Your task to perform on an android device: turn on location history Image 0: 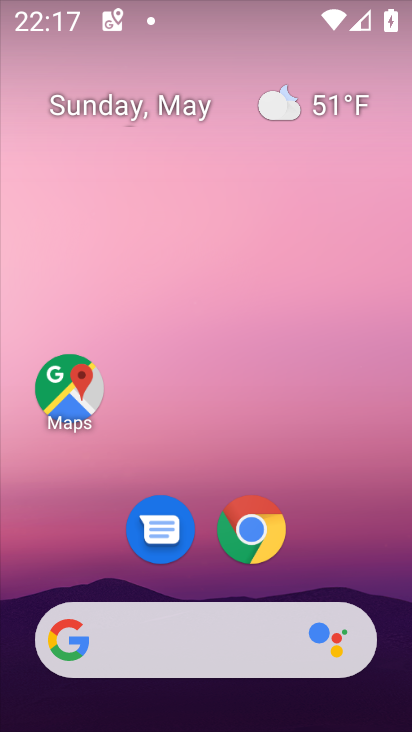
Step 0: drag from (184, 599) to (250, 6)
Your task to perform on an android device: turn on location history Image 1: 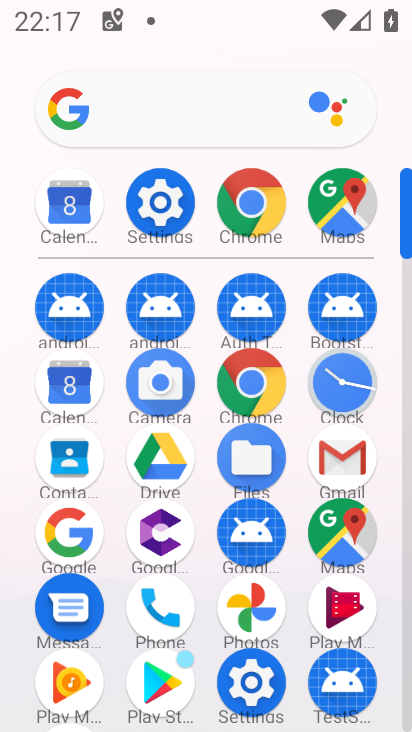
Step 1: click (252, 668)
Your task to perform on an android device: turn on location history Image 2: 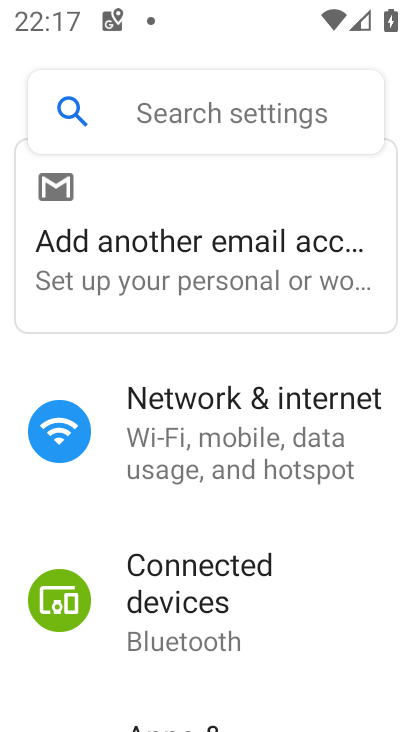
Step 2: drag from (226, 661) to (201, 199)
Your task to perform on an android device: turn on location history Image 3: 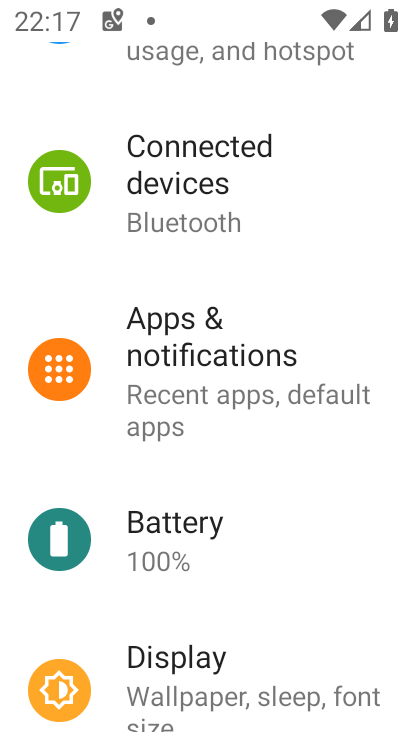
Step 3: drag from (240, 701) to (210, 107)
Your task to perform on an android device: turn on location history Image 4: 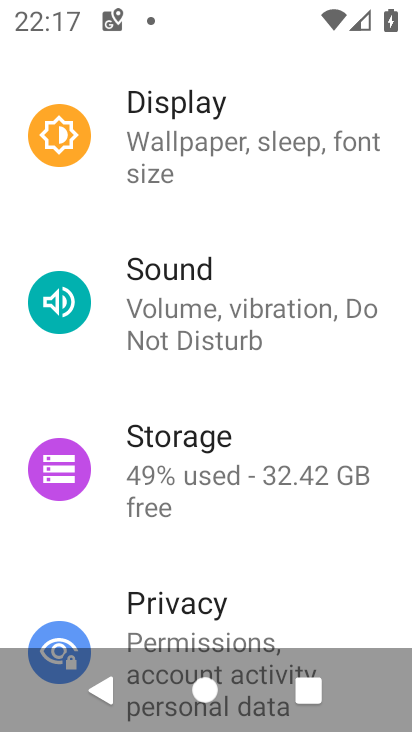
Step 4: drag from (278, 614) to (283, 104)
Your task to perform on an android device: turn on location history Image 5: 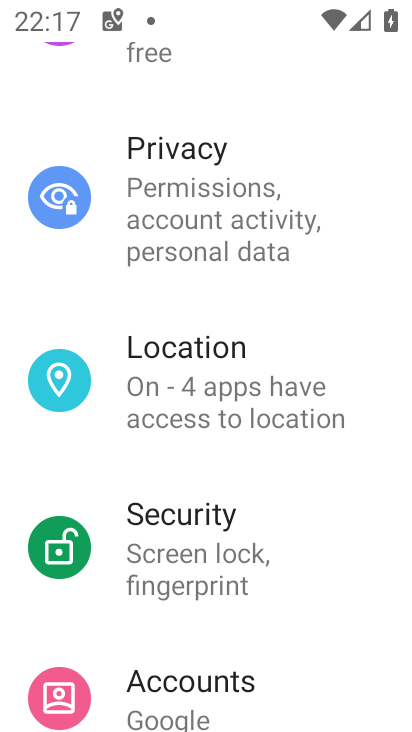
Step 5: click (251, 372)
Your task to perform on an android device: turn on location history Image 6: 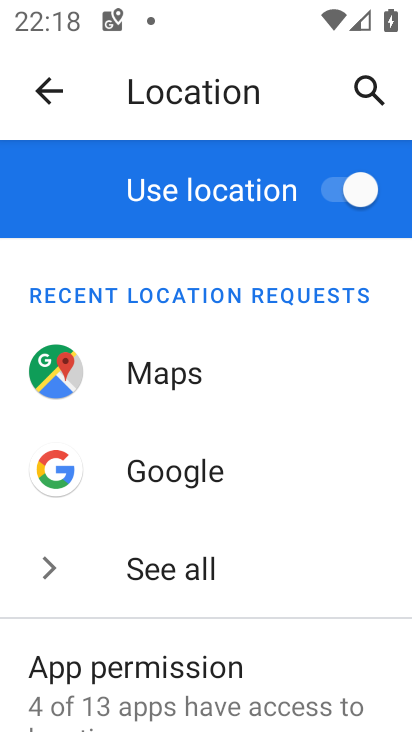
Step 6: drag from (229, 661) to (233, 228)
Your task to perform on an android device: turn on location history Image 7: 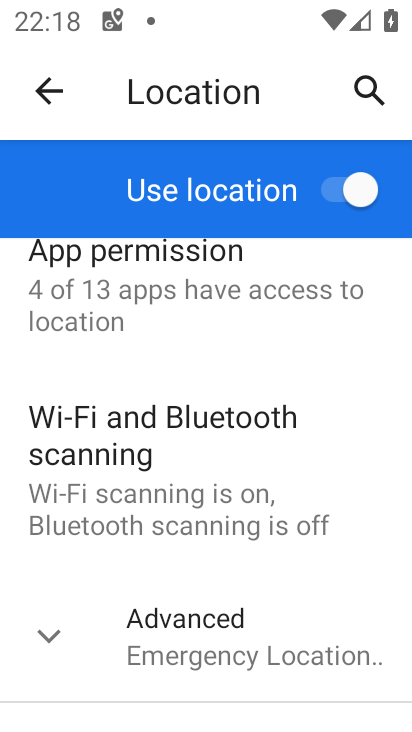
Step 7: drag from (140, 676) to (144, 332)
Your task to perform on an android device: turn on location history Image 8: 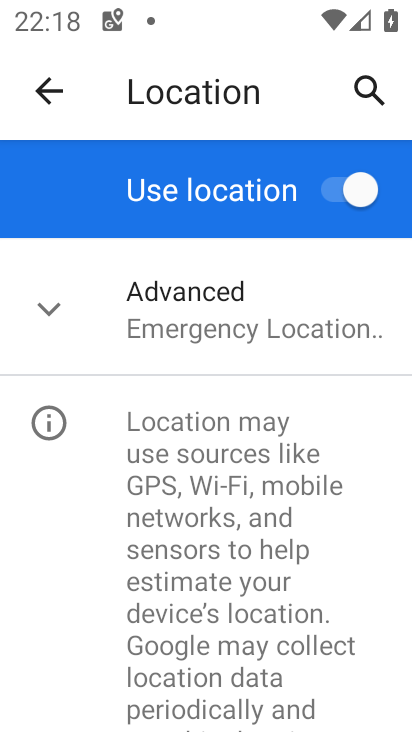
Step 8: click (183, 324)
Your task to perform on an android device: turn on location history Image 9: 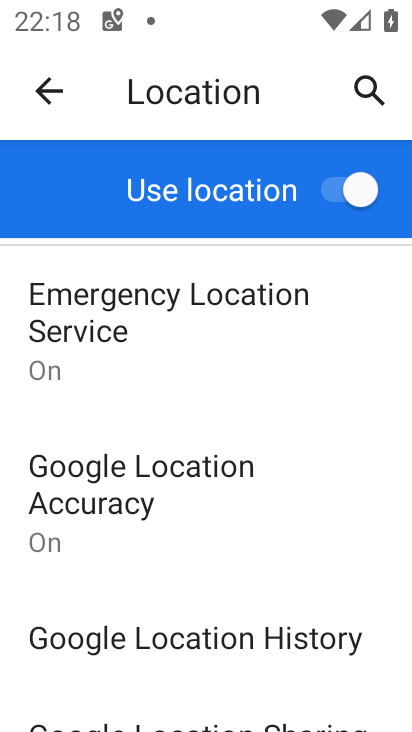
Step 9: click (193, 640)
Your task to perform on an android device: turn on location history Image 10: 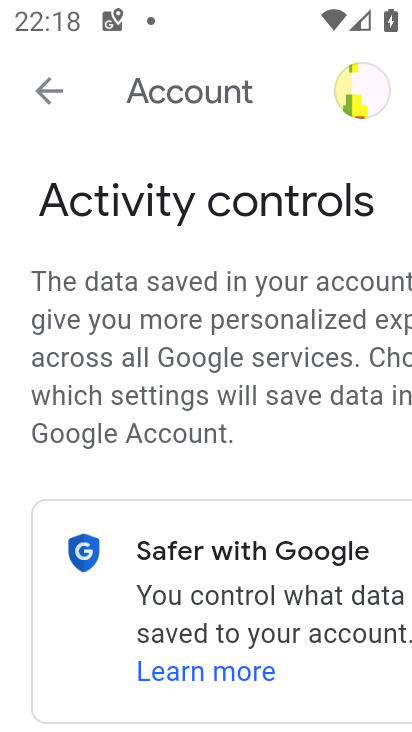
Step 10: task complete